Your task to perform on an android device: toggle translation in the chrome app Image 0: 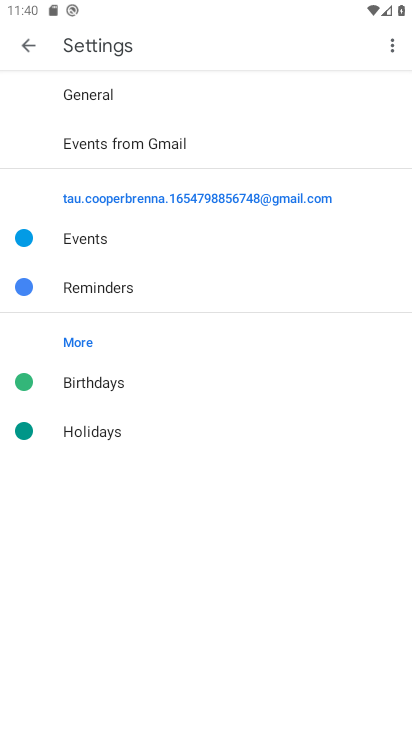
Step 0: press back button
Your task to perform on an android device: toggle translation in the chrome app Image 1: 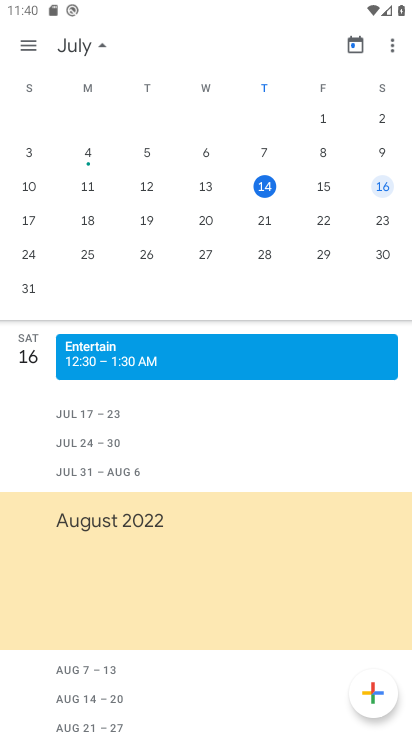
Step 1: press home button
Your task to perform on an android device: toggle translation in the chrome app Image 2: 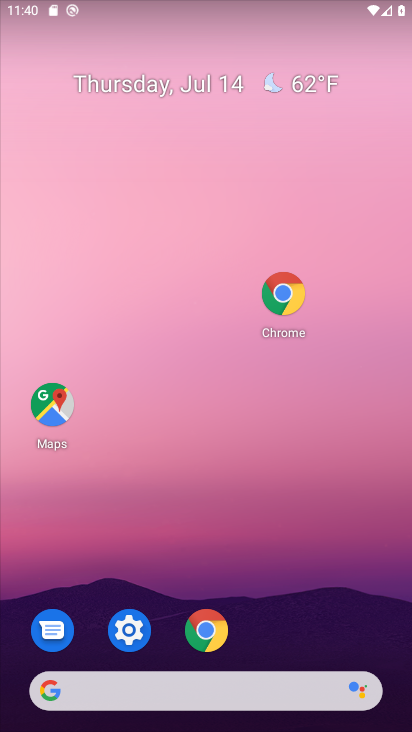
Step 2: drag from (241, 593) to (263, 24)
Your task to perform on an android device: toggle translation in the chrome app Image 3: 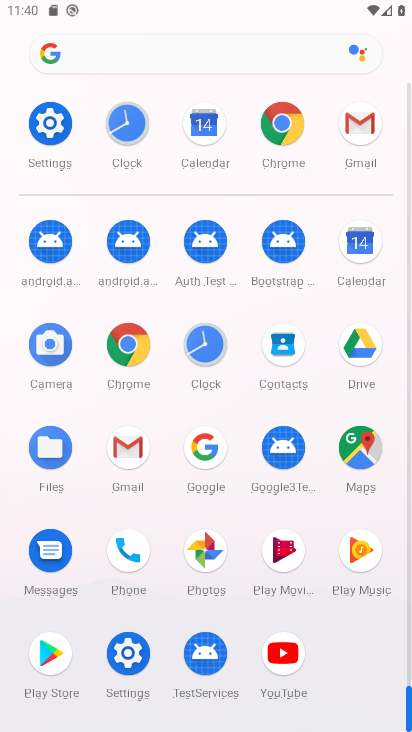
Step 3: click (276, 128)
Your task to perform on an android device: toggle translation in the chrome app Image 4: 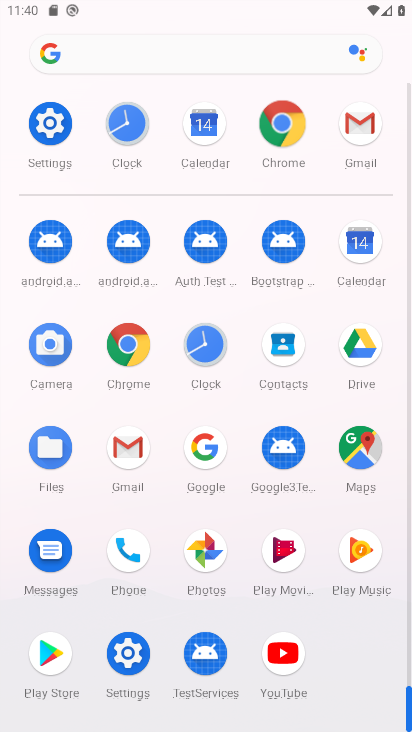
Step 4: click (278, 124)
Your task to perform on an android device: toggle translation in the chrome app Image 5: 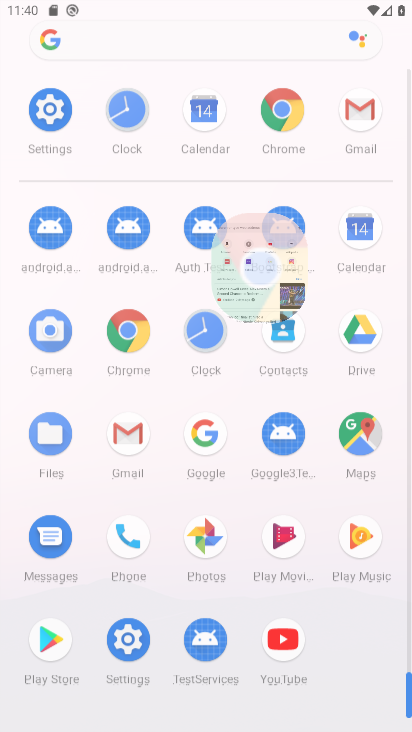
Step 5: click (280, 124)
Your task to perform on an android device: toggle translation in the chrome app Image 6: 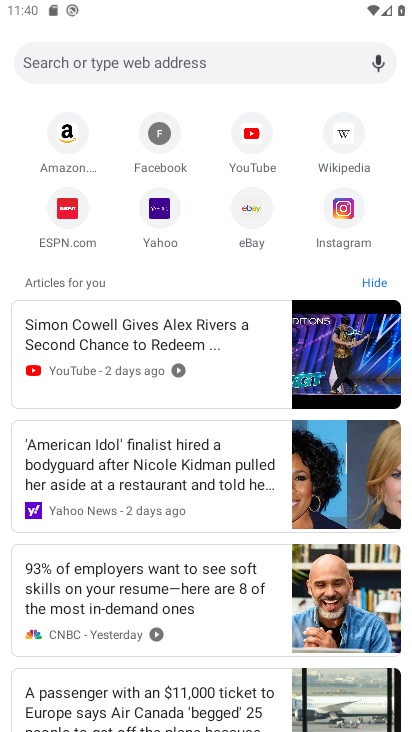
Step 6: drag from (248, 132) to (307, 506)
Your task to perform on an android device: toggle translation in the chrome app Image 7: 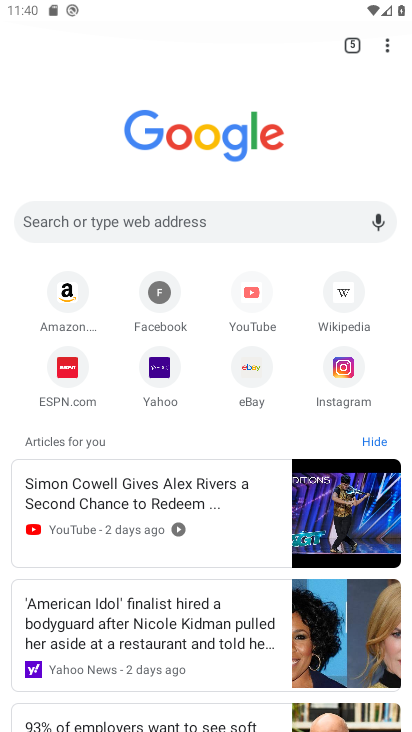
Step 7: drag from (265, 71) to (317, 378)
Your task to perform on an android device: toggle translation in the chrome app Image 8: 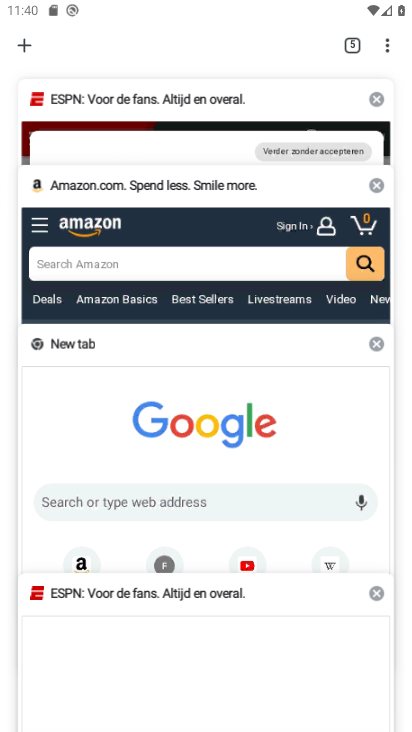
Step 8: drag from (377, 46) to (225, 285)
Your task to perform on an android device: toggle translation in the chrome app Image 9: 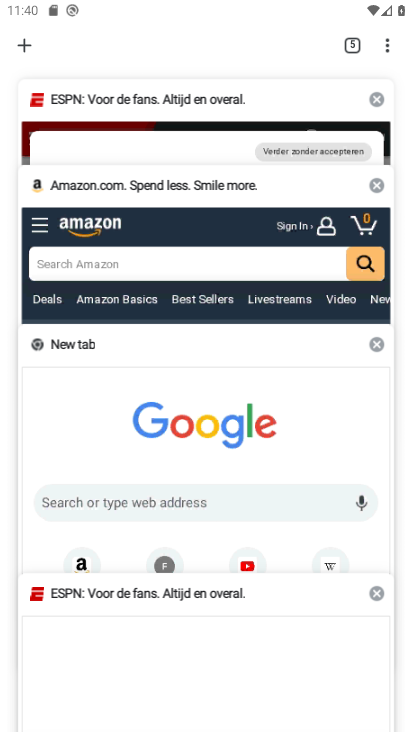
Step 9: drag from (383, 48) to (242, 144)
Your task to perform on an android device: toggle translation in the chrome app Image 10: 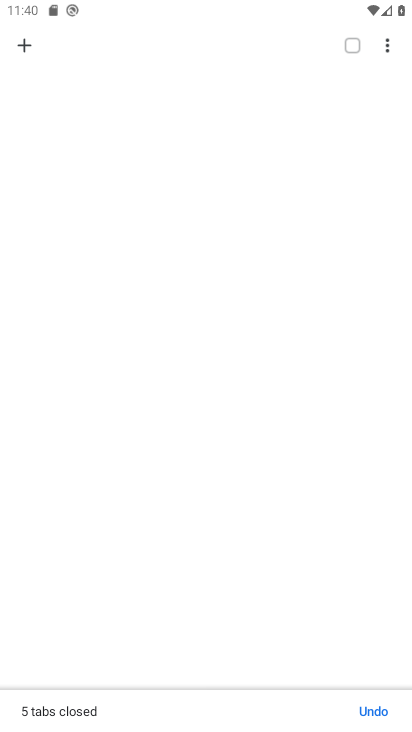
Step 10: press back button
Your task to perform on an android device: toggle translation in the chrome app Image 11: 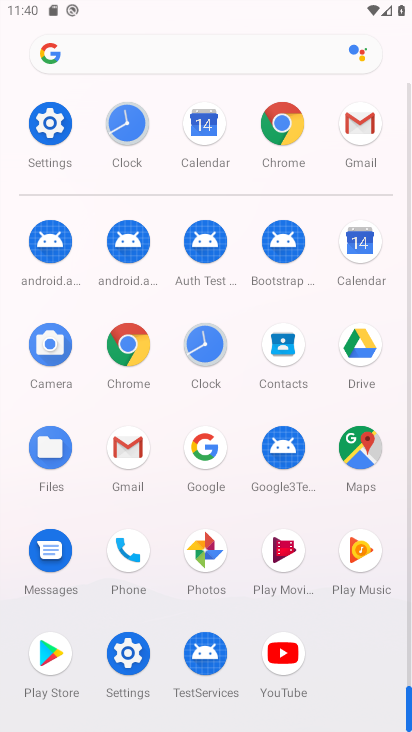
Step 11: click (289, 131)
Your task to perform on an android device: toggle translation in the chrome app Image 12: 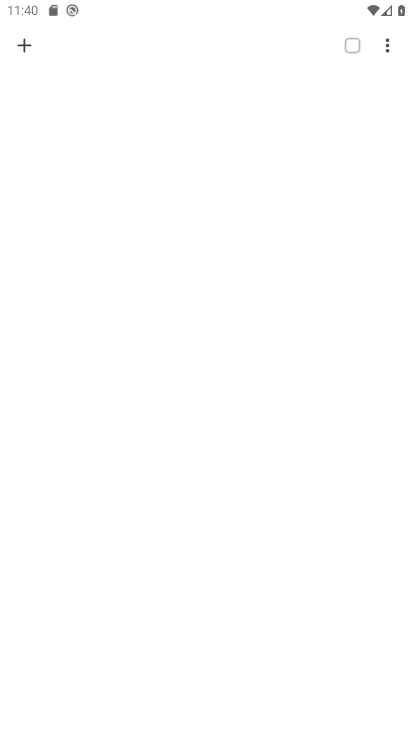
Step 12: drag from (386, 47) to (242, 373)
Your task to perform on an android device: toggle translation in the chrome app Image 13: 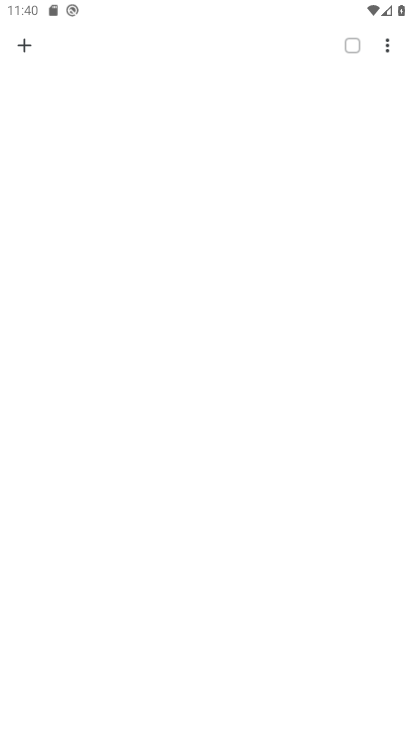
Step 13: press back button
Your task to perform on an android device: toggle translation in the chrome app Image 14: 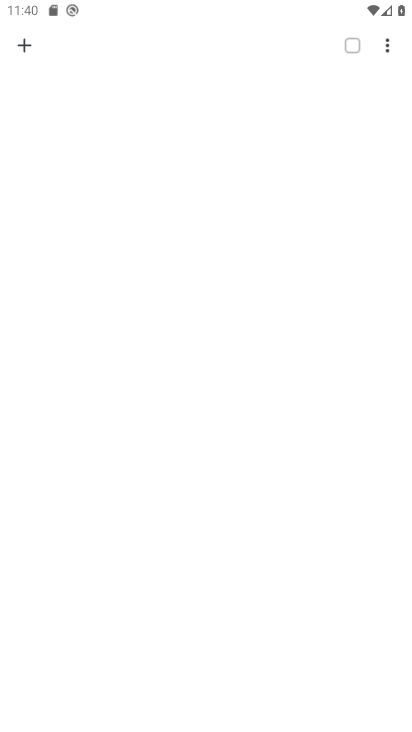
Step 14: press back button
Your task to perform on an android device: toggle translation in the chrome app Image 15: 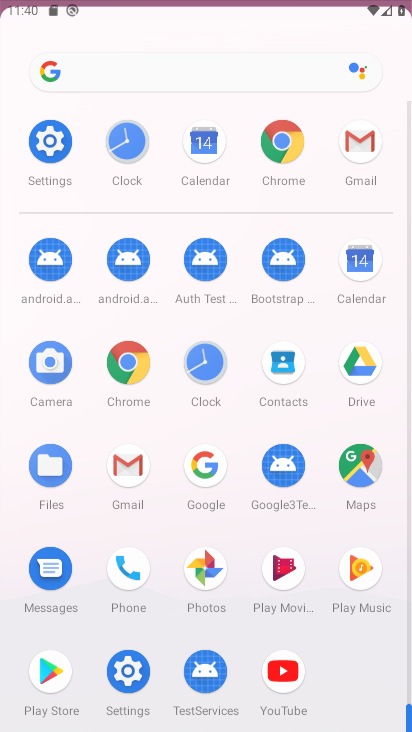
Step 15: press back button
Your task to perform on an android device: toggle translation in the chrome app Image 16: 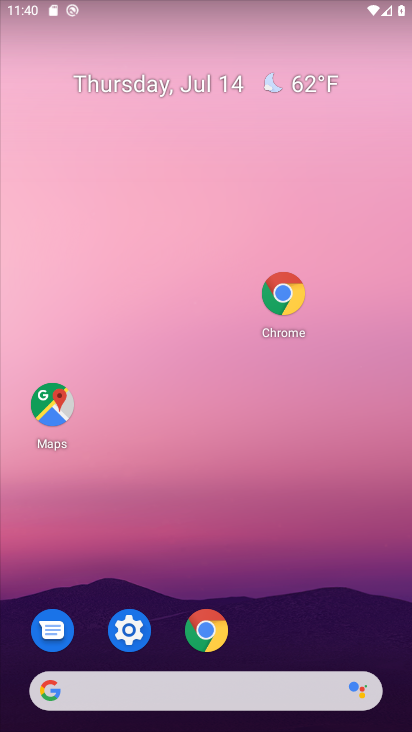
Step 16: drag from (220, 572) to (207, 13)
Your task to perform on an android device: toggle translation in the chrome app Image 17: 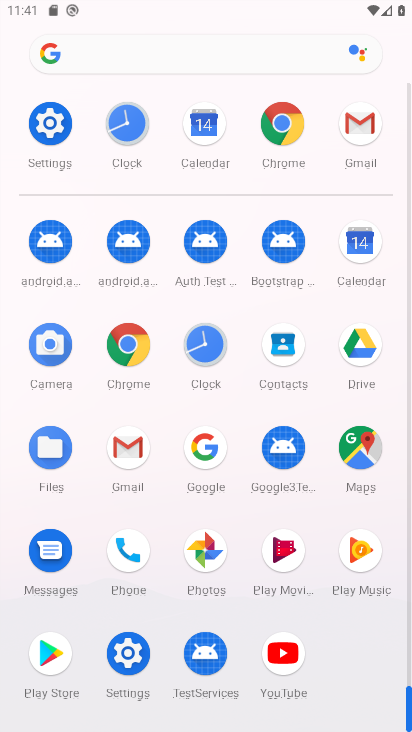
Step 17: click (276, 108)
Your task to perform on an android device: toggle translation in the chrome app Image 18: 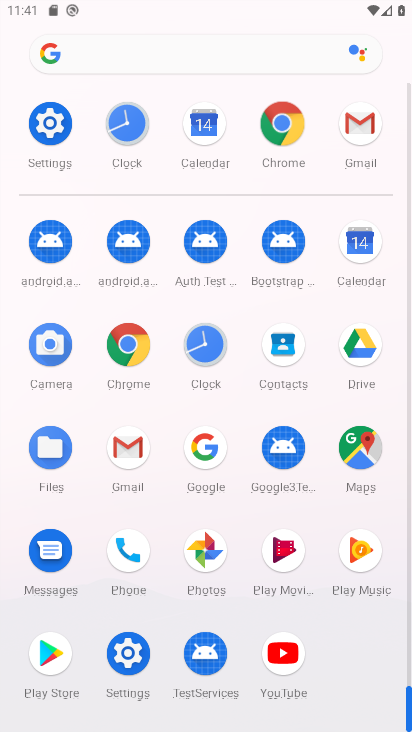
Step 18: click (278, 106)
Your task to perform on an android device: toggle translation in the chrome app Image 19: 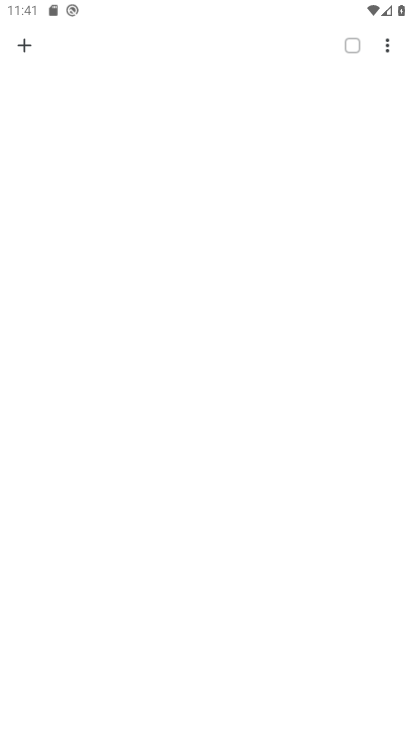
Step 19: drag from (387, 44) to (221, 181)
Your task to perform on an android device: toggle translation in the chrome app Image 20: 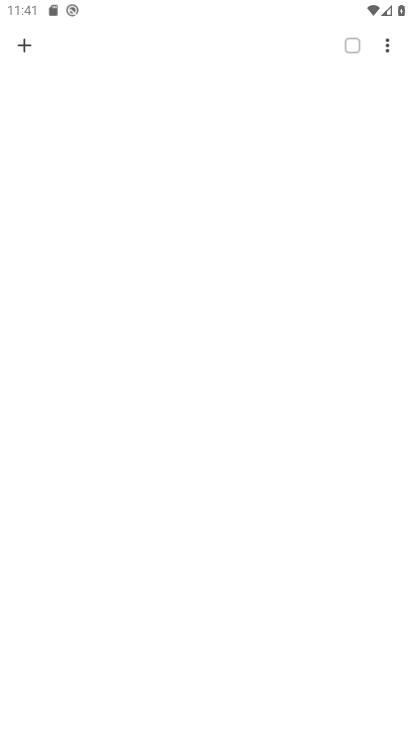
Step 20: click (220, 181)
Your task to perform on an android device: toggle translation in the chrome app Image 21: 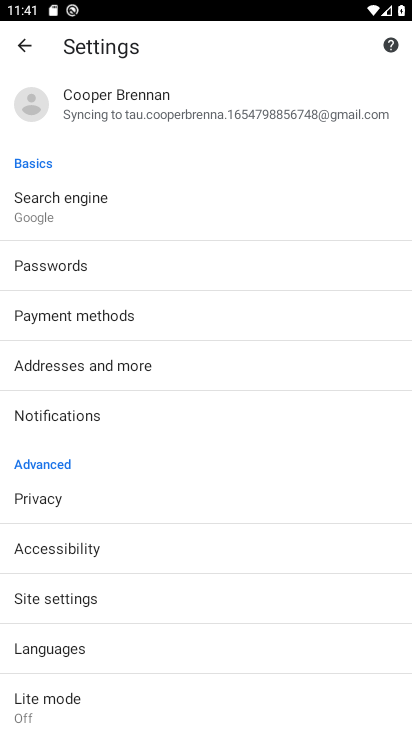
Step 21: drag from (93, 605) to (86, 392)
Your task to perform on an android device: toggle translation in the chrome app Image 22: 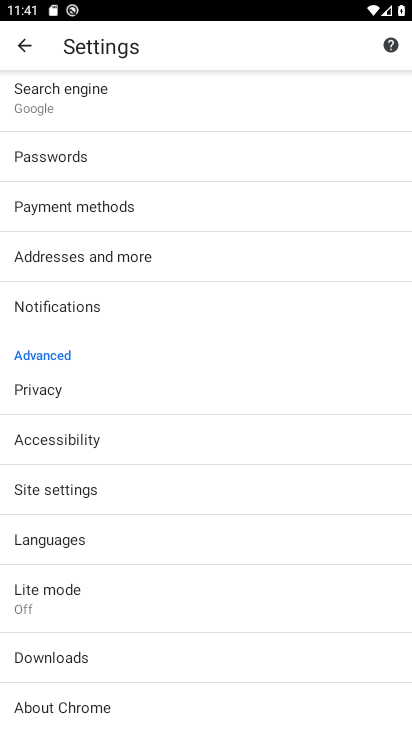
Step 22: click (55, 535)
Your task to perform on an android device: toggle translation in the chrome app Image 23: 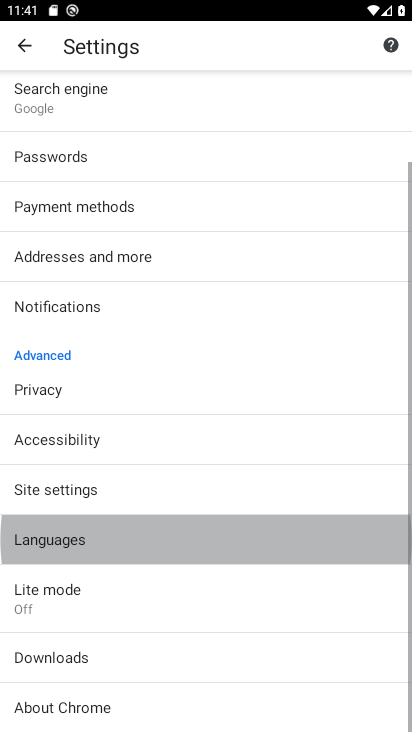
Step 23: click (71, 543)
Your task to perform on an android device: toggle translation in the chrome app Image 24: 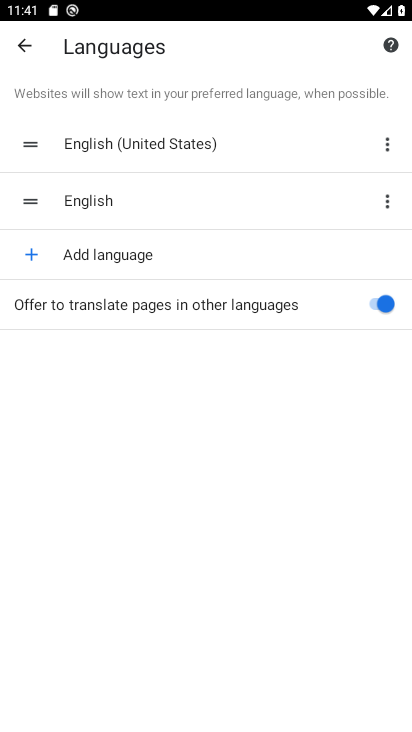
Step 24: click (380, 297)
Your task to perform on an android device: toggle translation in the chrome app Image 25: 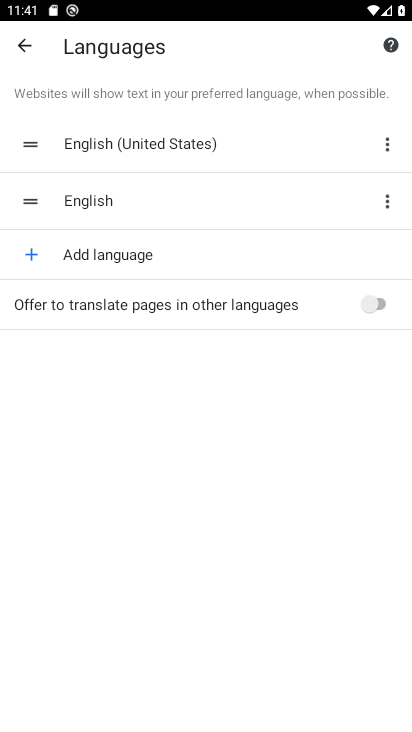
Step 25: task complete